Your task to perform on an android device: set default search engine in the chrome app Image 0: 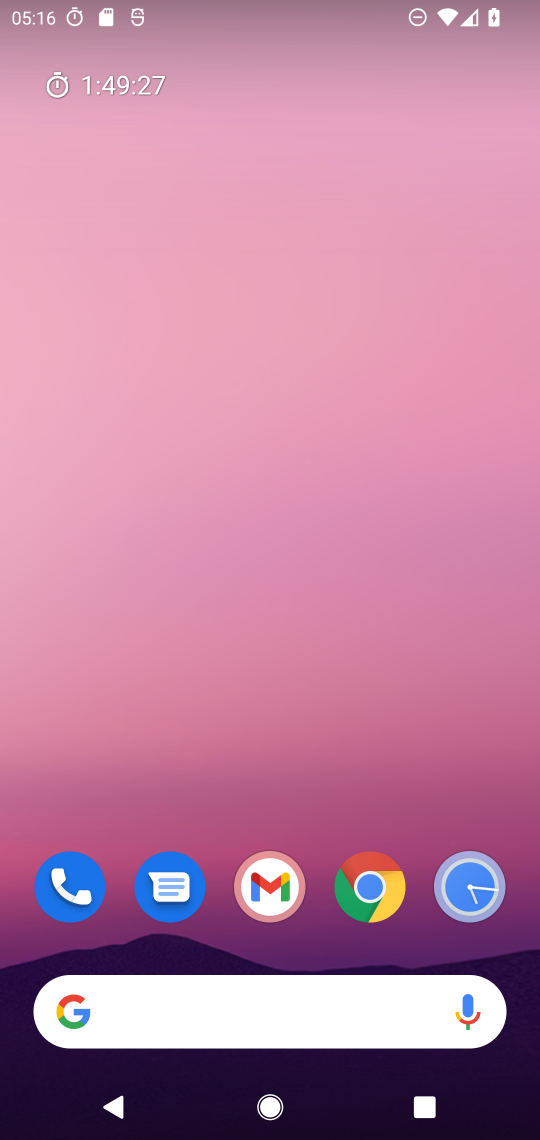
Step 0: press home button
Your task to perform on an android device: set default search engine in the chrome app Image 1: 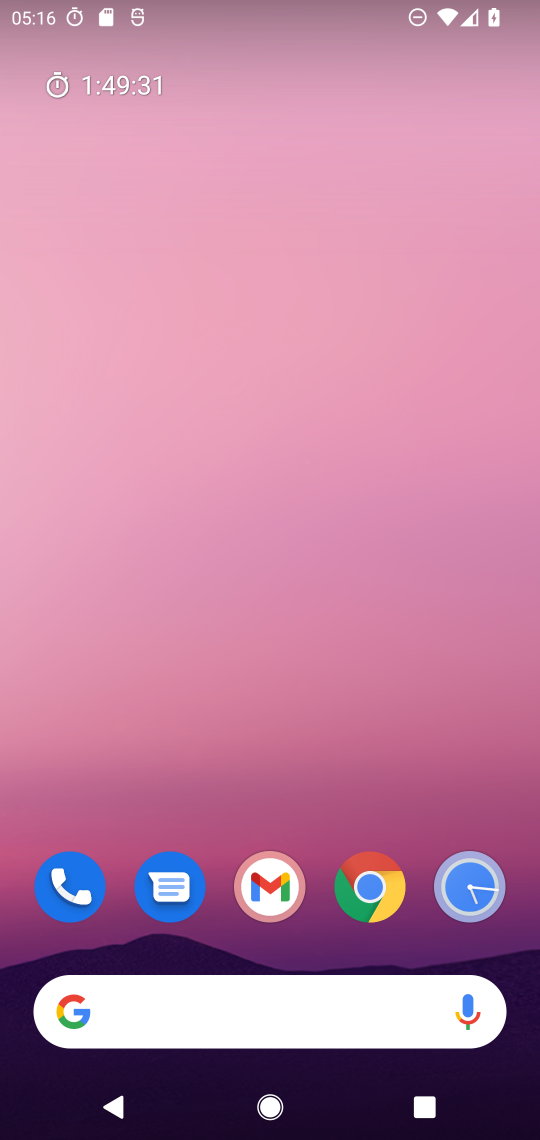
Step 1: drag from (416, 812) to (465, 345)
Your task to perform on an android device: set default search engine in the chrome app Image 2: 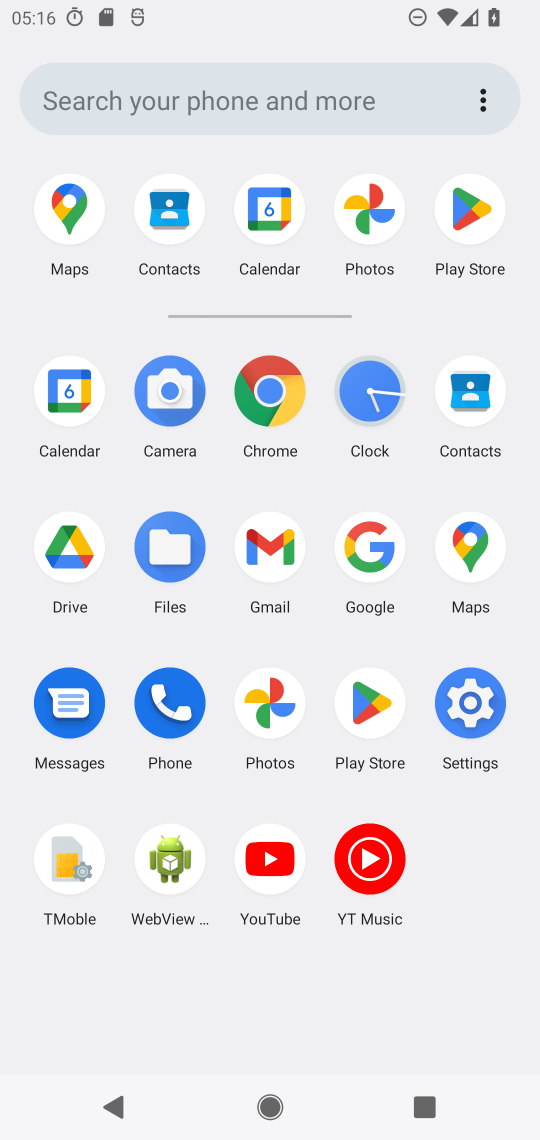
Step 2: click (269, 396)
Your task to perform on an android device: set default search engine in the chrome app Image 3: 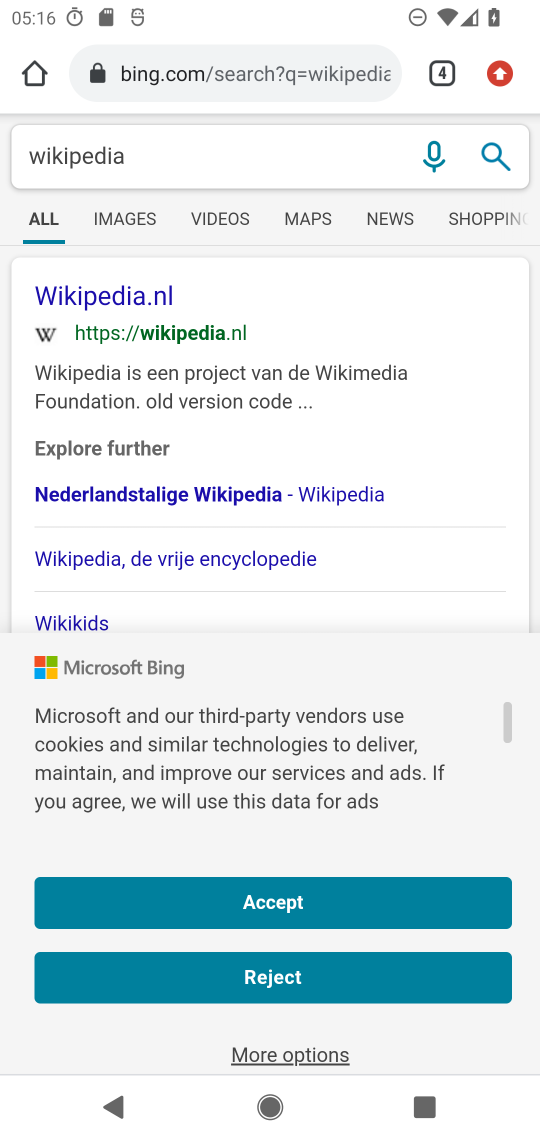
Step 3: click (498, 69)
Your task to perform on an android device: set default search engine in the chrome app Image 4: 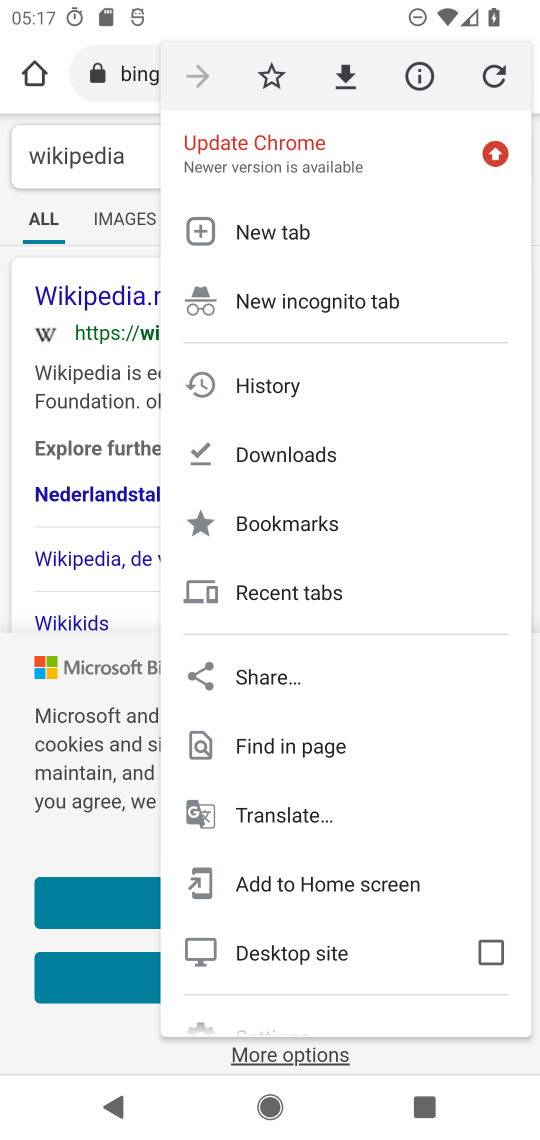
Step 4: drag from (387, 691) to (442, 527)
Your task to perform on an android device: set default search engine in the chrome app Image 5: 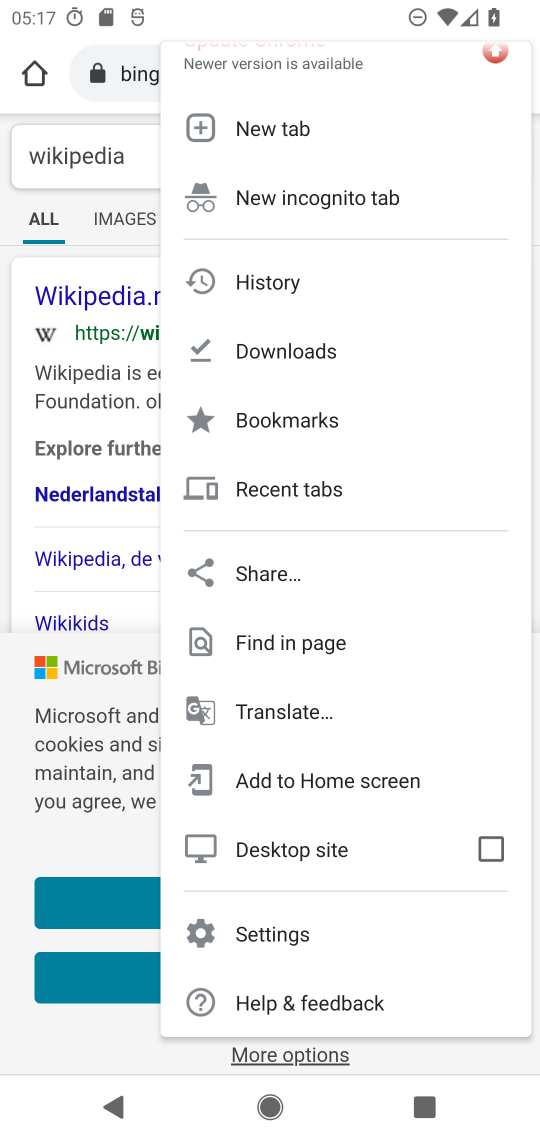
Step 5: click (332, 932)
Your task to perform on an android device: set default search engine in the chrome app Image 6: 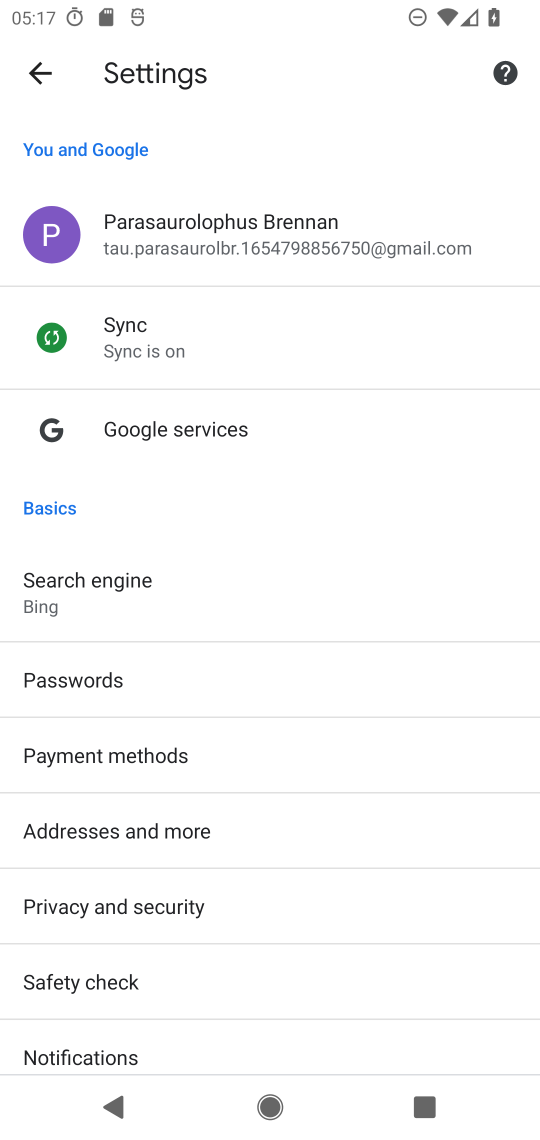
Step 6: drag from (400, 780) to (400, 588)
Your task to perform on an android device: set default search engine in the chrome app Image 7: 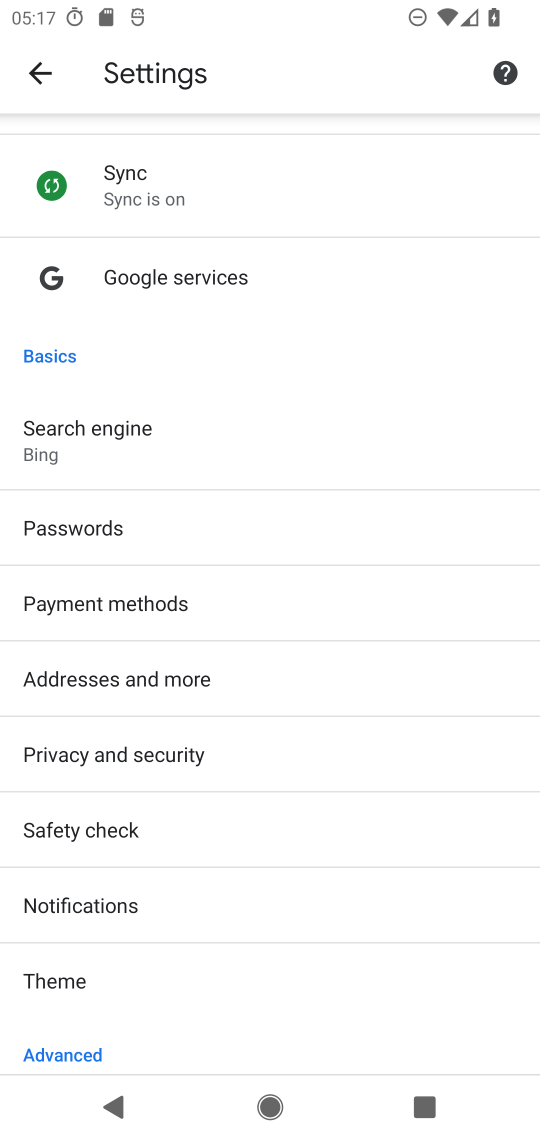
Step 7: drag from (383, 819) to (393, 659)
Your task to perform on an android device: set default search engine in the chrome app Image 8: 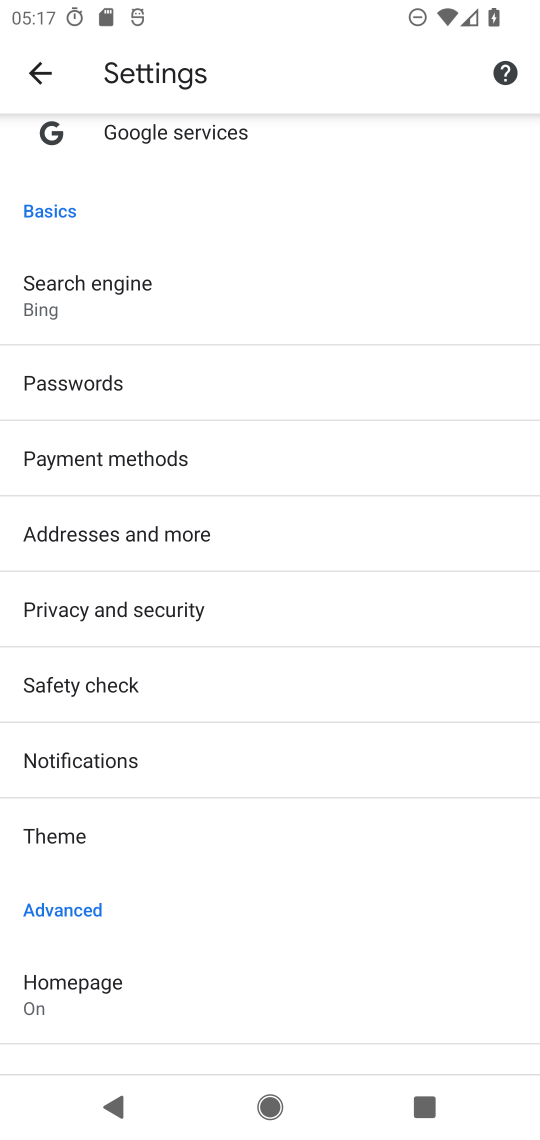
Step 8: click (287, 323)
Your task to perform on an android device: set default search engine in the chrome app Image 9: 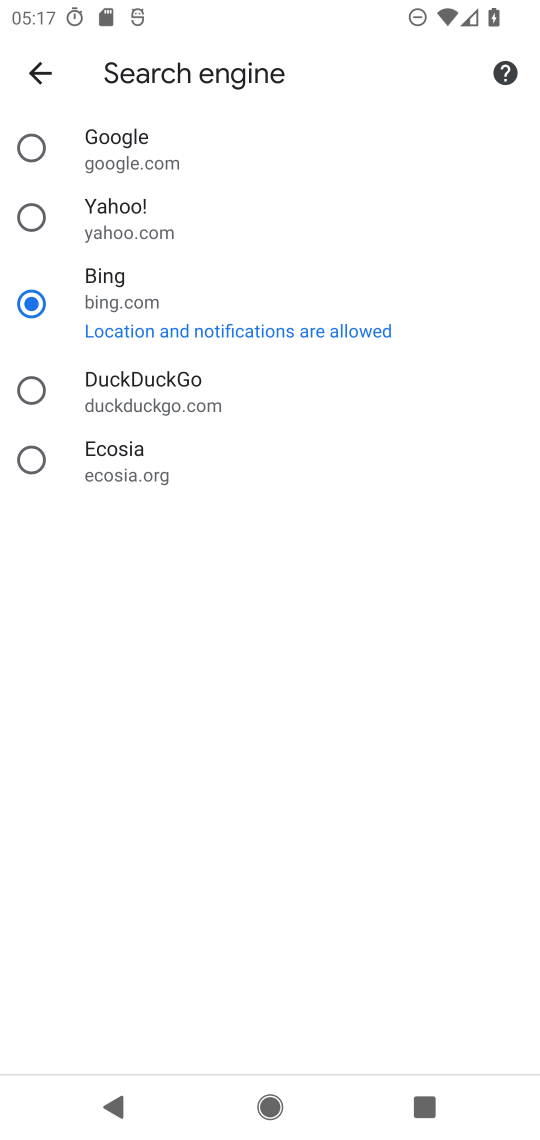
Step 9: click (138, 132)
Your task to perform on an android device: set default search engine in the chrome app Image 10: 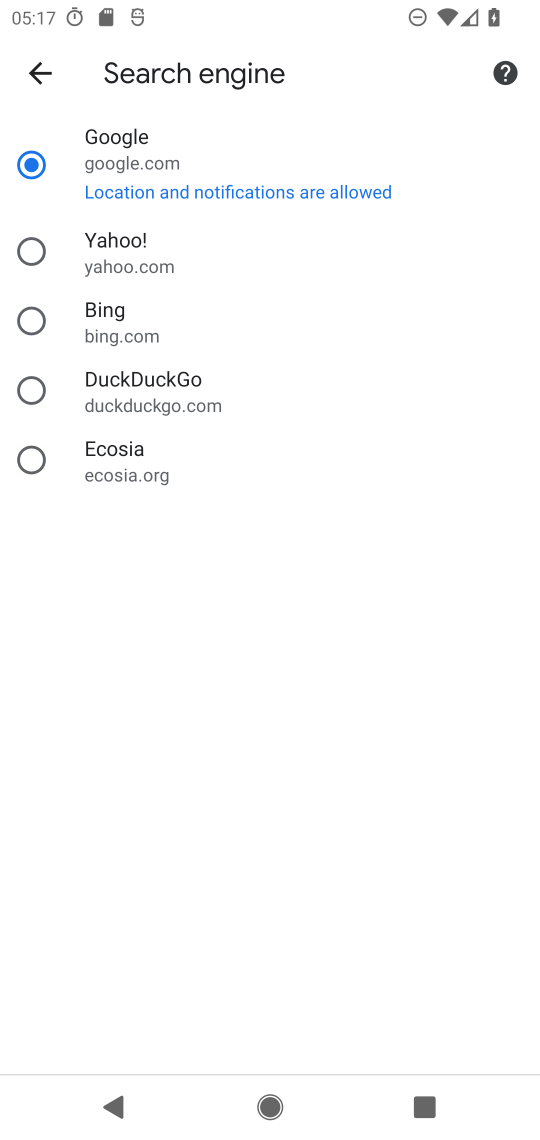
Step 10: task complete